Your task to perform on an android device: refresh tabs in the chrome app Image 0: 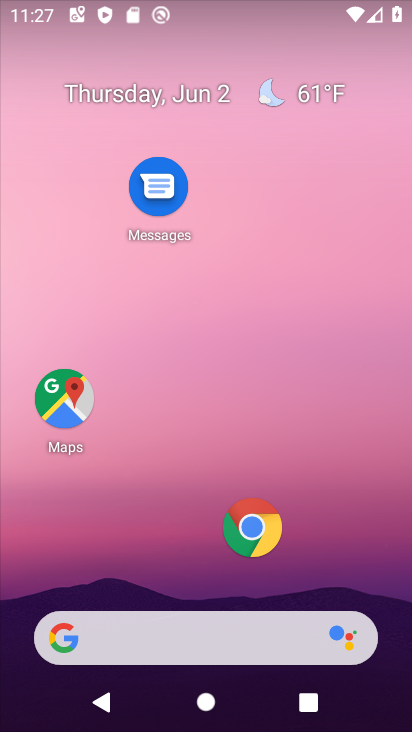
Step 0: press home button
Your task to perform on an android device: refresh tabs in the chrome app Image 1: 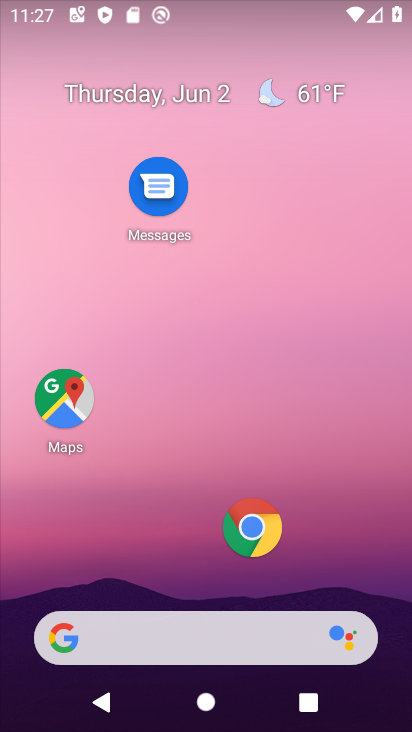
Step 1: click (248, 520)
Your task to perform on an android device: refresh tabs in the chrome app Image 2: 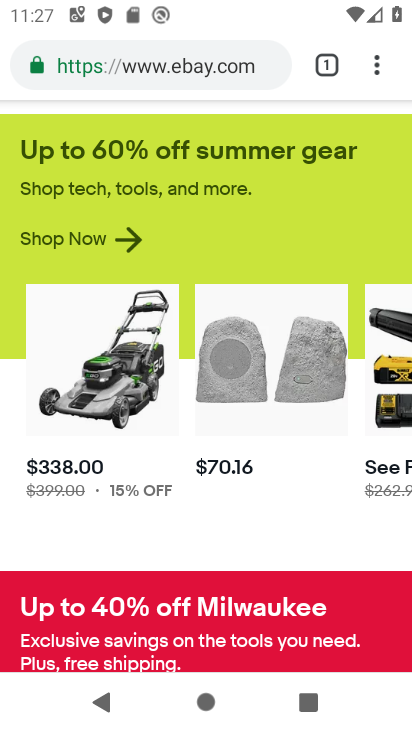
Step 2: drag from (276, 122) to (275, 447)
Your task to perform on an android device: refresh tabs in the chrome app Image 3: 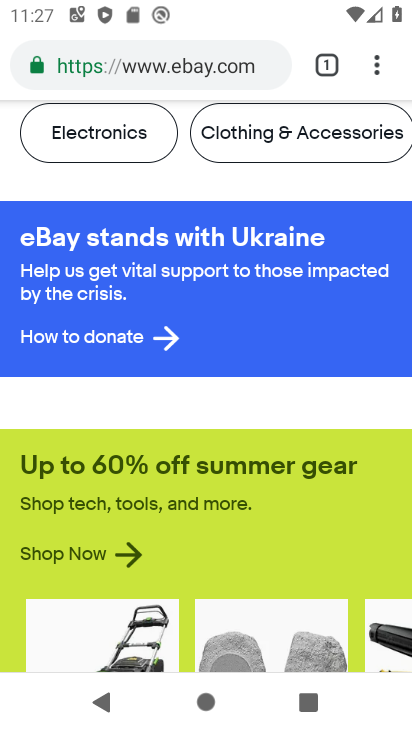
Step 3: click (373, 60)
Your task to perform on an android device: refresh tabs in the chrome app Image 4: 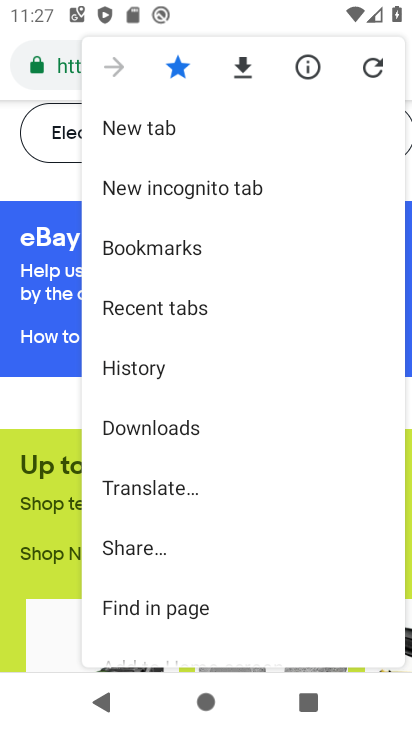
Step 4: click (379, 69)
Your task to perform on an android device: refresh tabs in the chrome app Image 5: 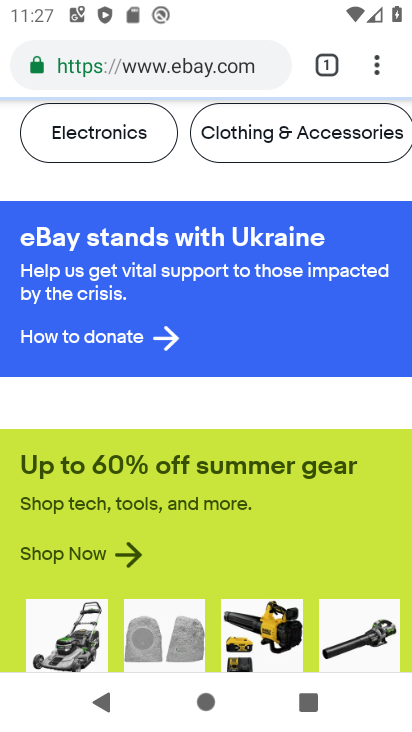
Step 5: task complete